Your task to perform on an android device: turn smart compose on in the gmail app Image 0: 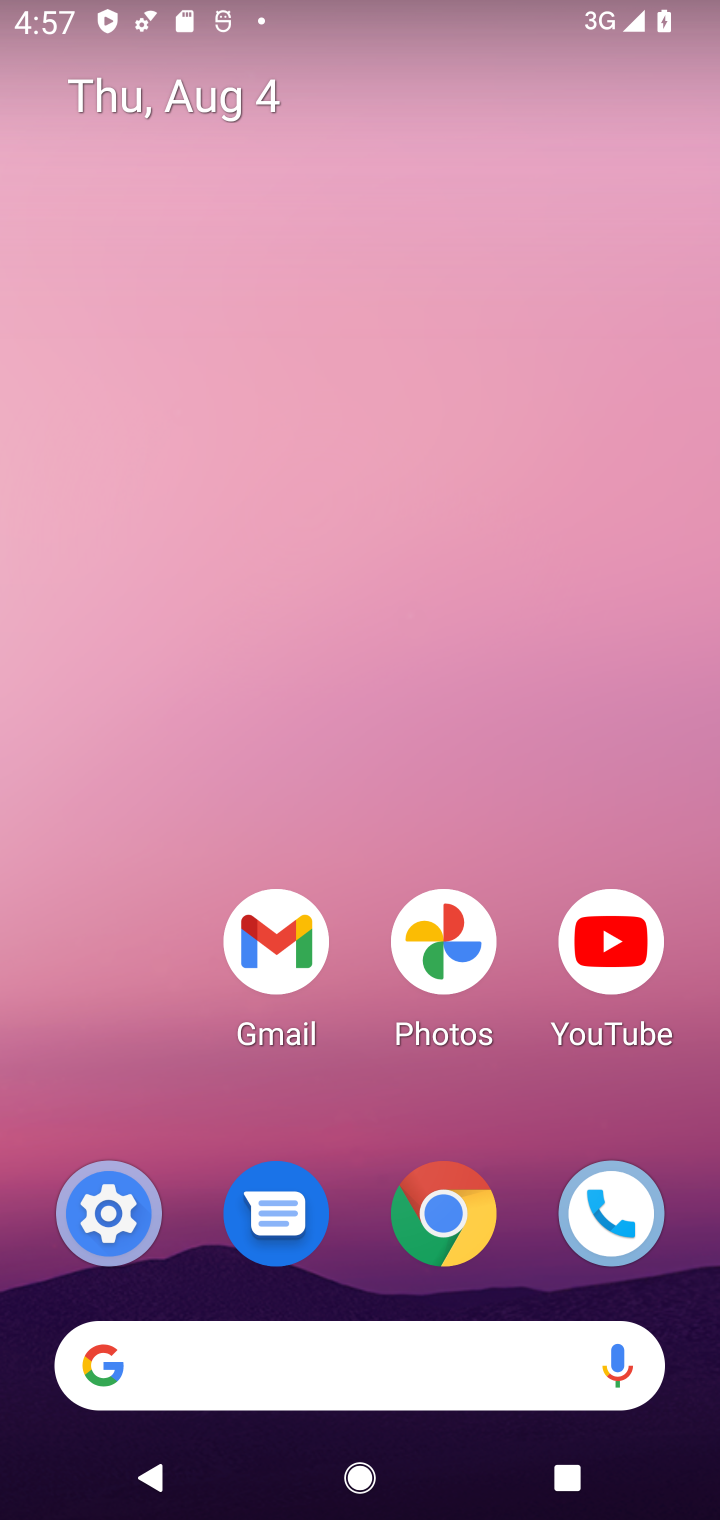
Step 0: press home button
Your task to perform on an android device: turn smart compose on in the gmail app Image 1: 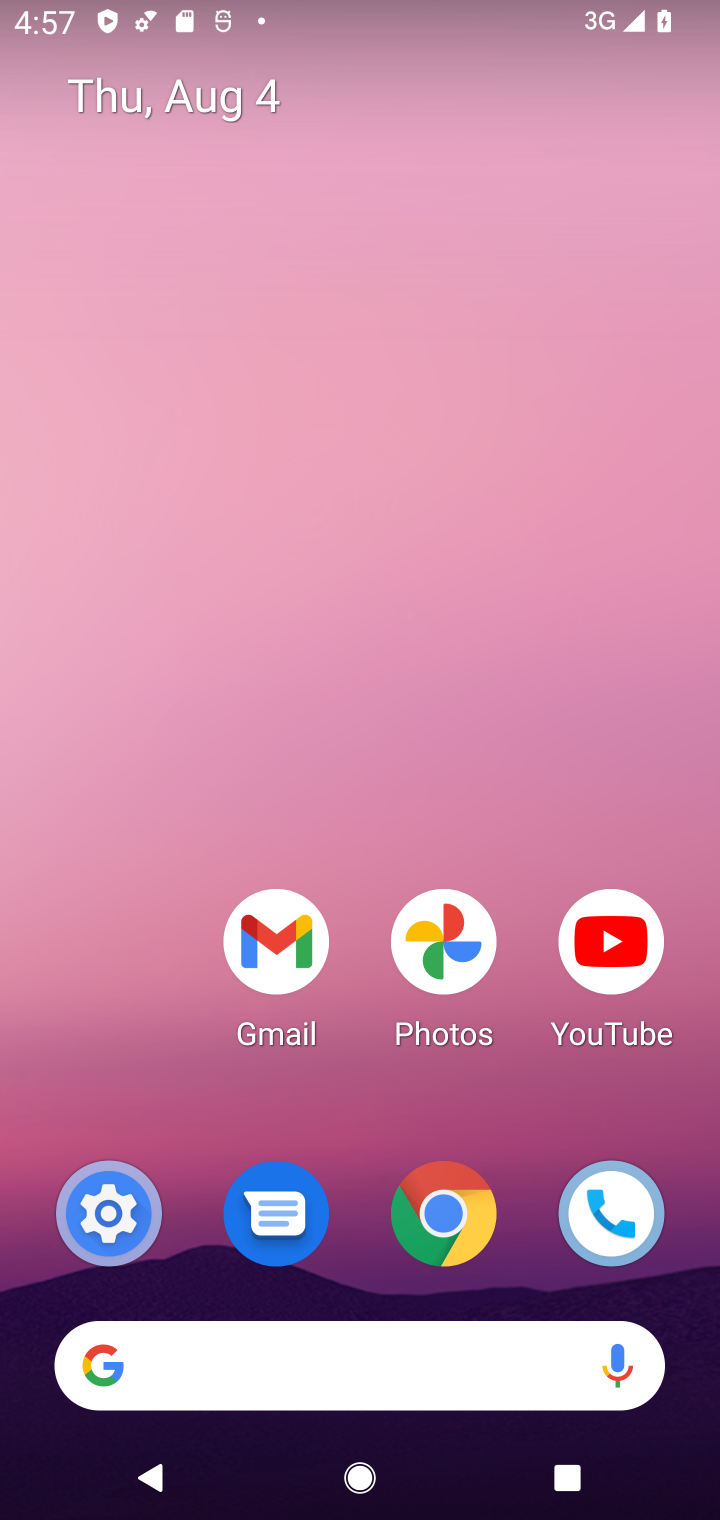
Step 1: drag from (170, 1125) to (133, 250)
Your task to perform on an android device: turn smart compose on in the gmail app Image 2: 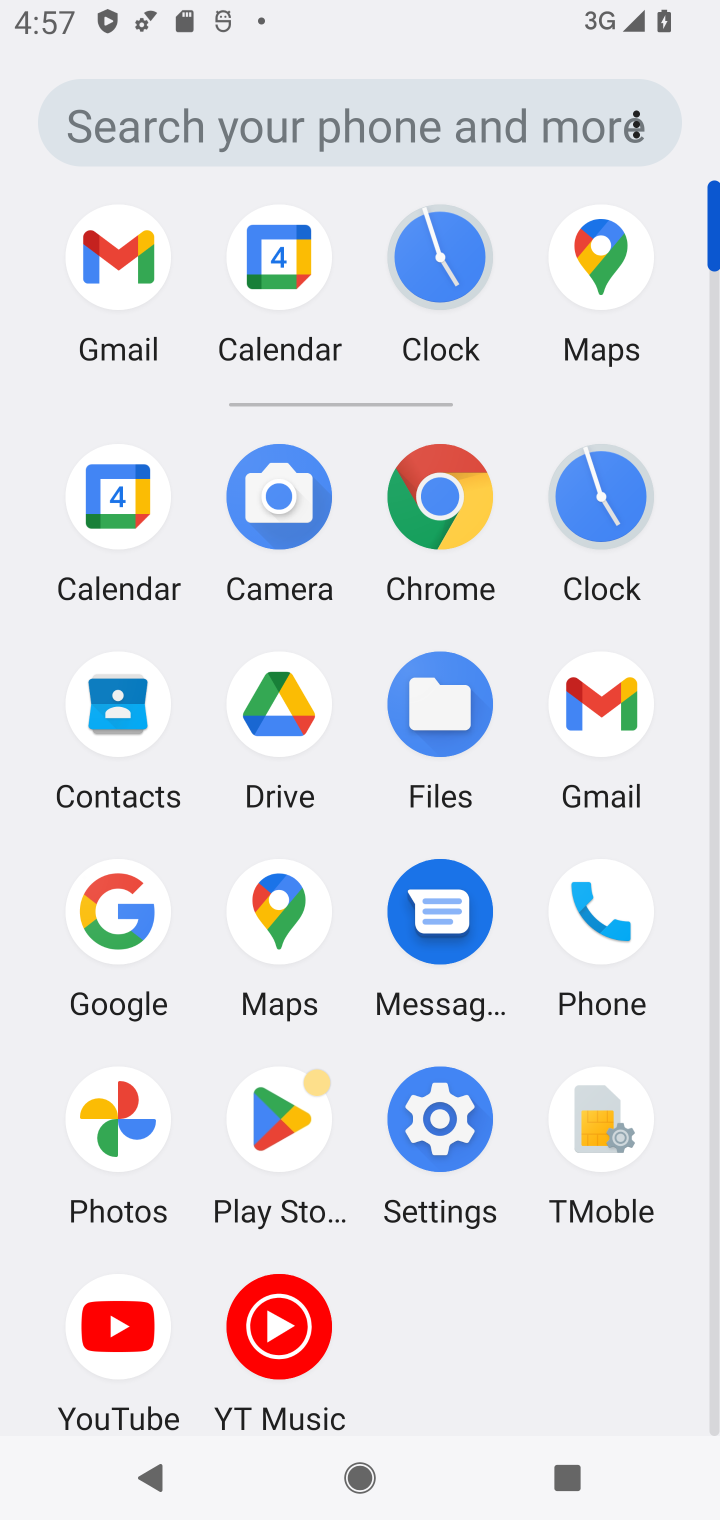
Step 2: click (621, 694)
Your task to perform on an android device: turn smart compose on in the gmail app Image 3: 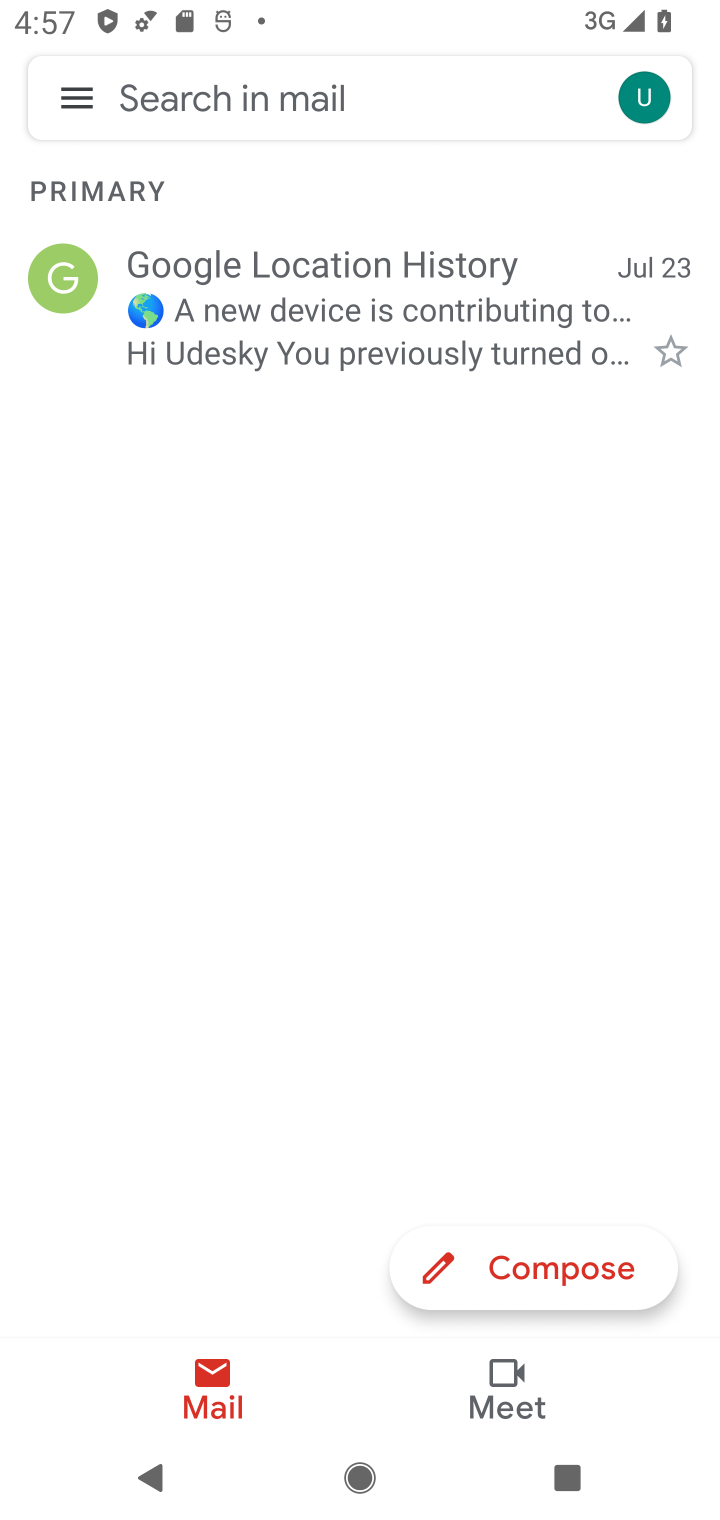
Step 3: click (76, 96)
Your task to perform on an android device: turn smart compose on in the gmail app Image 4: 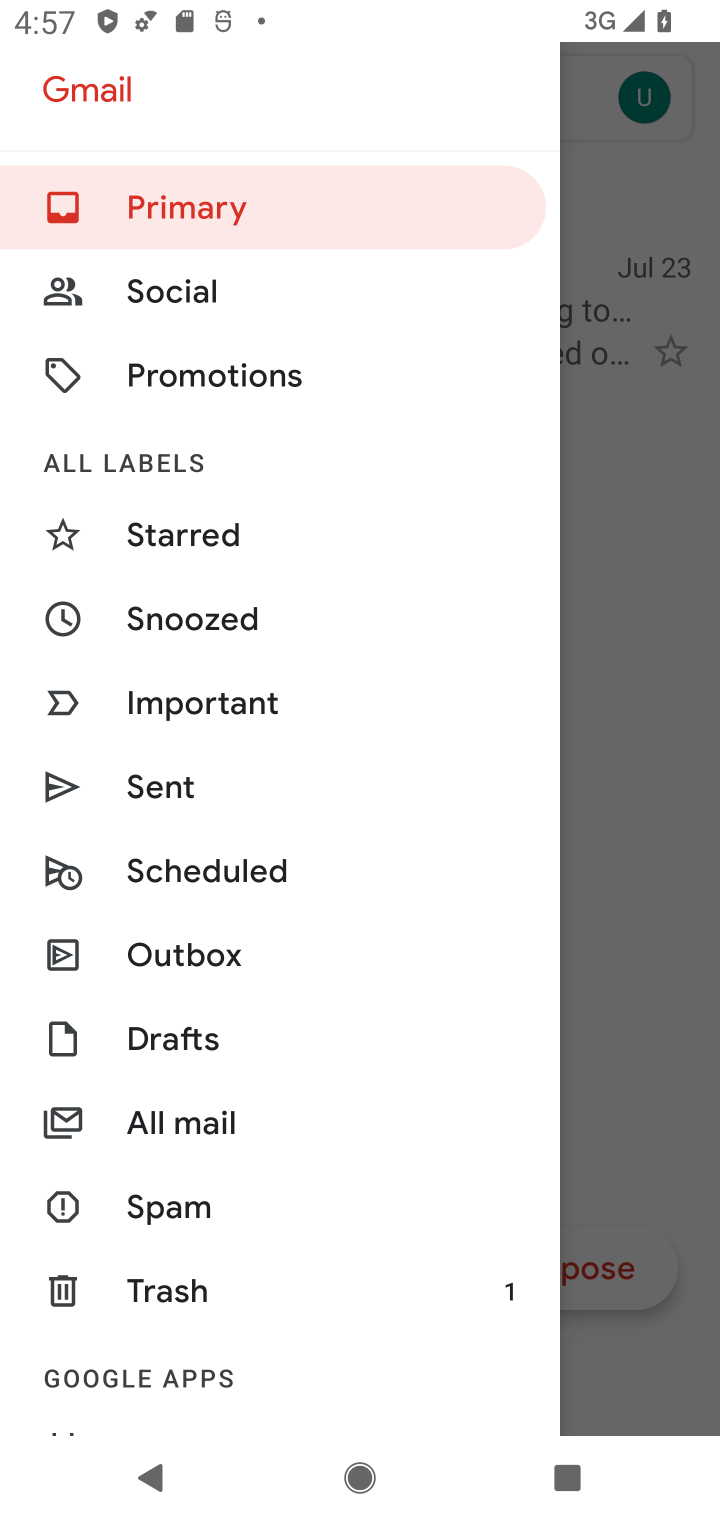
Step 4: drag from (413, 1053) to (404, 772)
Your task to perform on an android device: turn smart compose on in the gmail app Image 5: 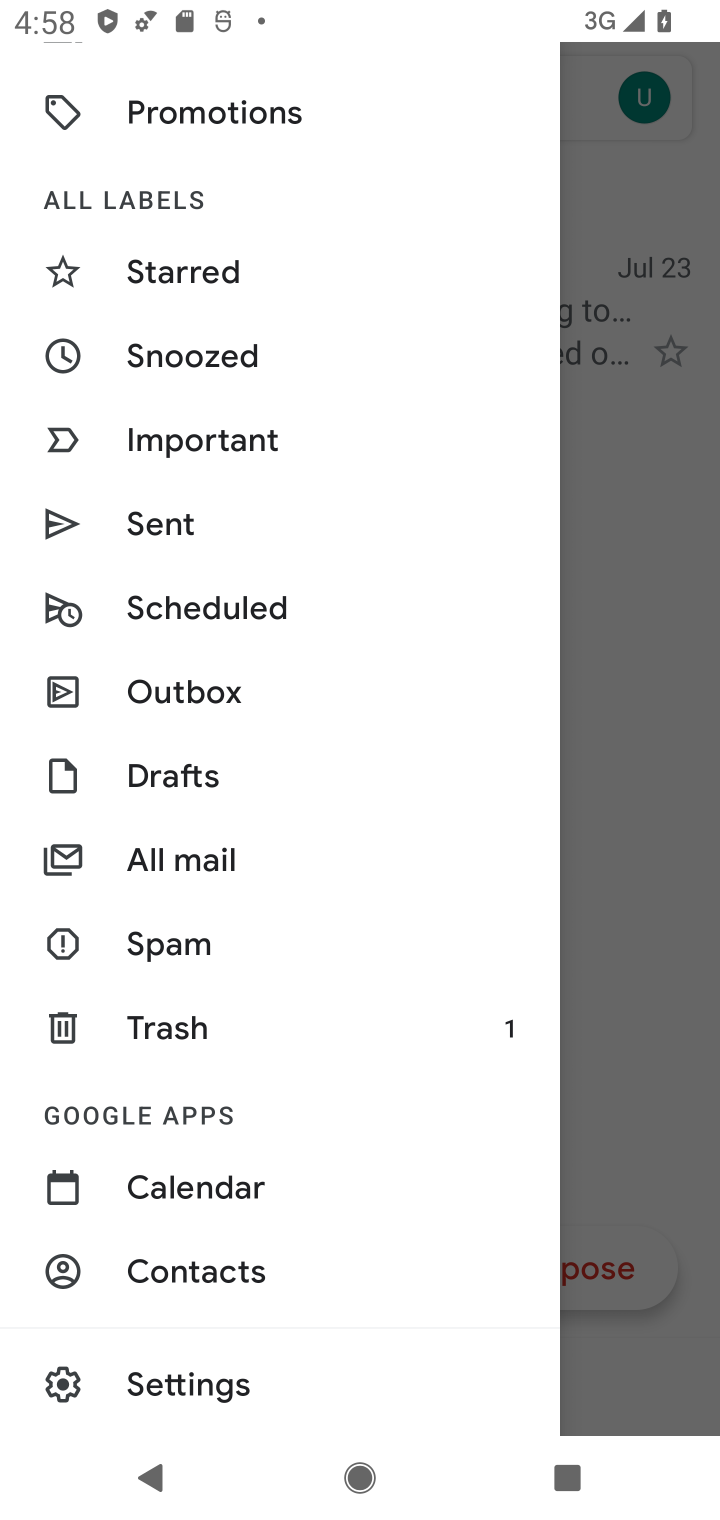
Step 5: drag from (404, 1006) to (403, 784)
Your task to perform on an android device: turn smart compose on in the gmail app Image 6: 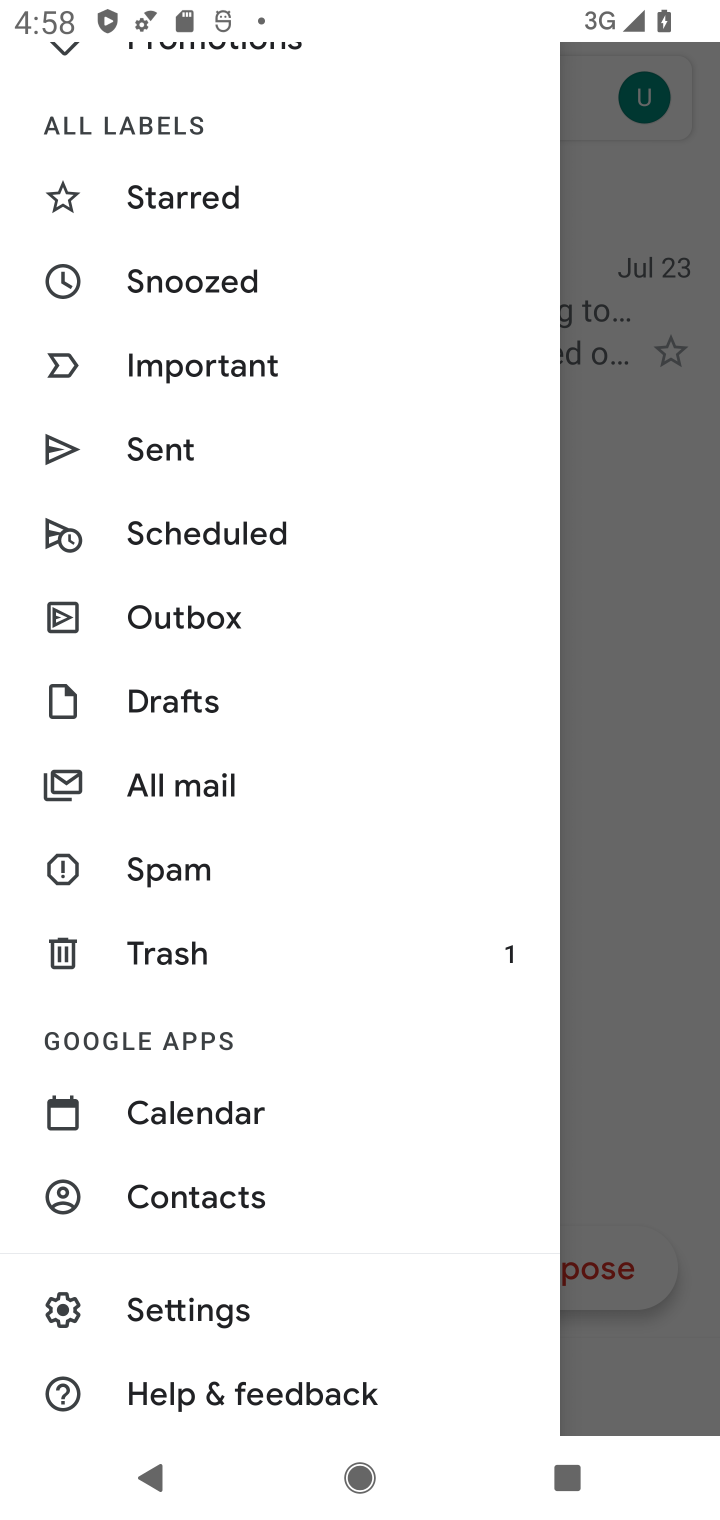
Step 6: click (222, 1313)
Your task to perform on an android device: turn smart compose on in the gmail app Image 7: 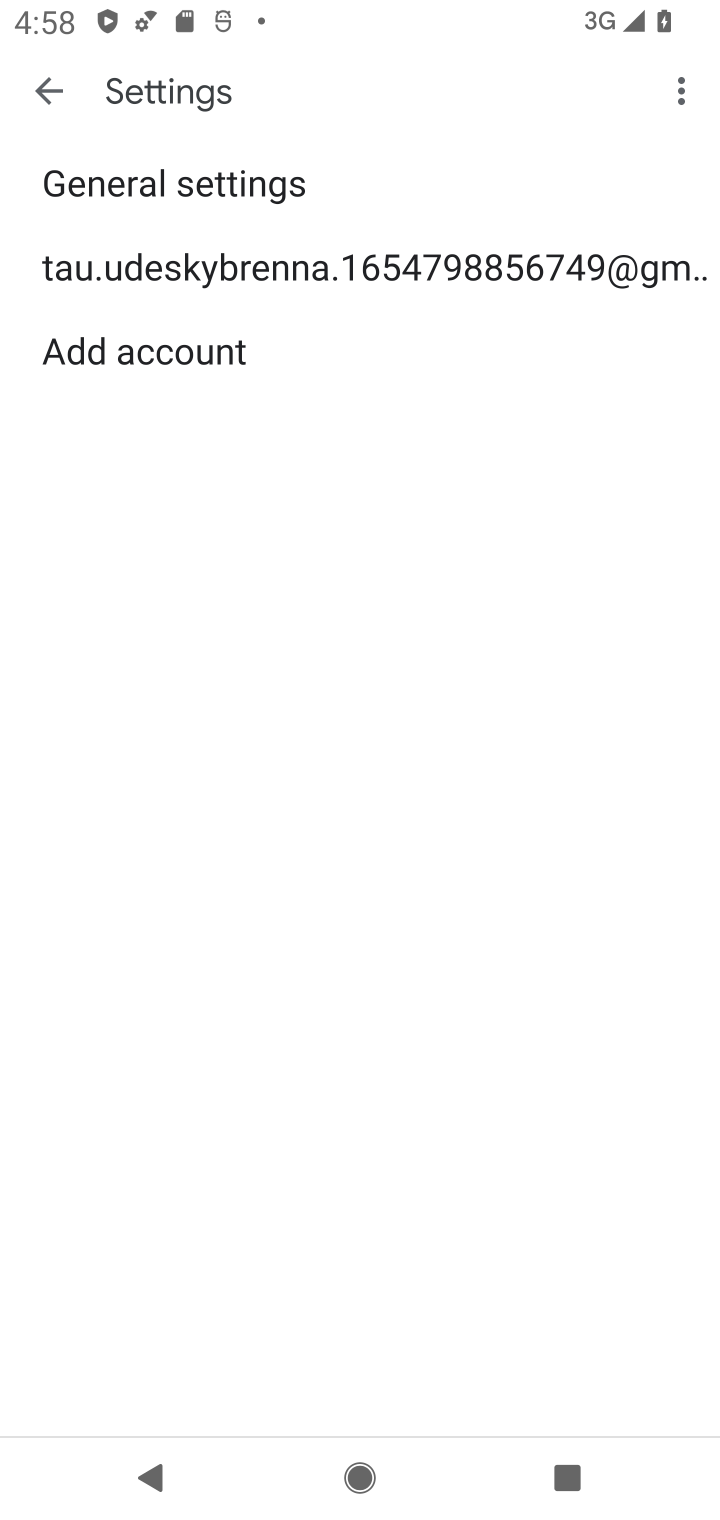
Step 7: click (297, 258)
Your task to perform on an android device: turn smart compose on in the gmail app Image 8: 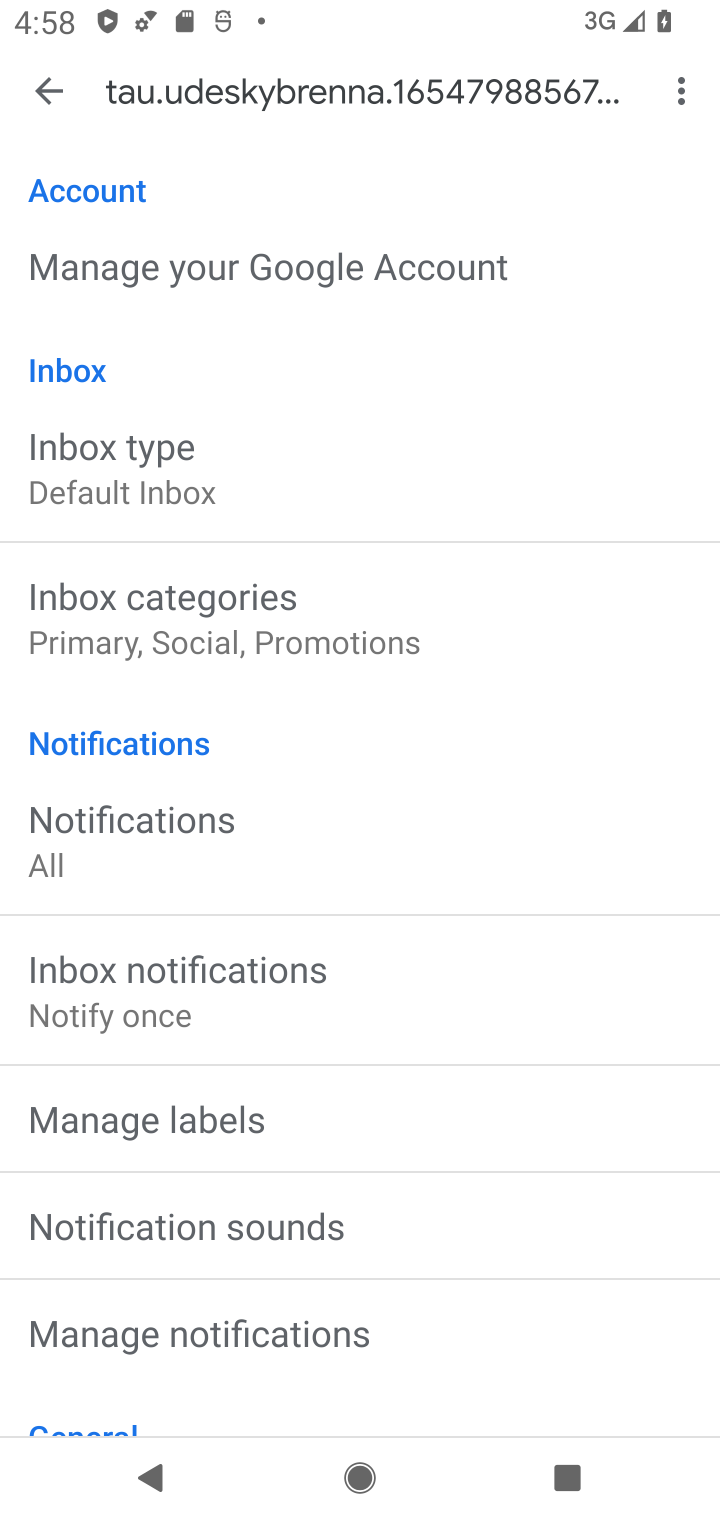
Step 8: task complete